Your task to perform on an android device: open sync settings in chrome Image 0: 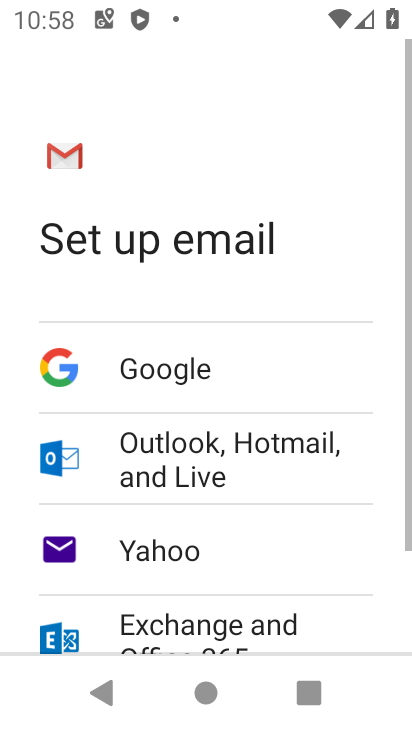
Step 0: press home button
Your task to perform on an android device: open sync settings in chrome Image 1: 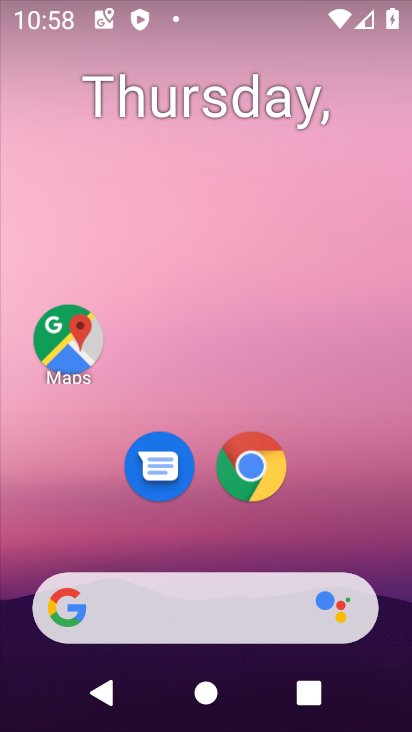
Step 1: click (249, 479)
Your task to perform on an android device: open sync settings in chrome Image 2: 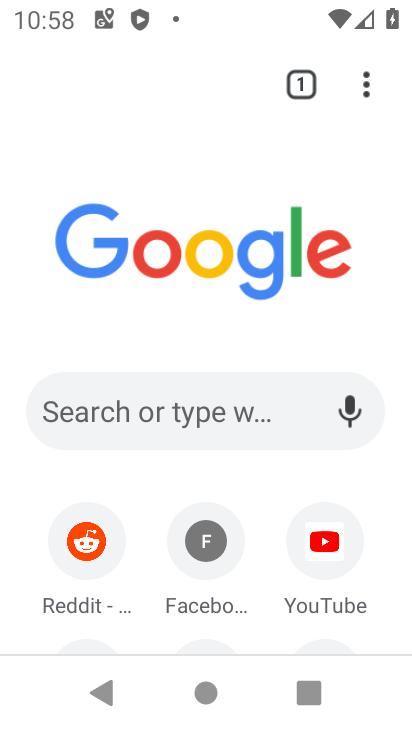
Step 2: click (366, 93)
Your task to perform on an android device: open sync settings in chrome Image 3: 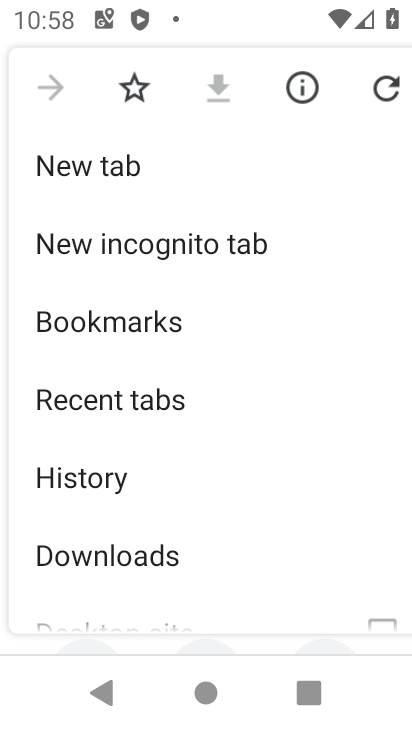
Step 3: drag from (136, 498) to (63, 53)
Your task to perform on an android device: open sync settings in chrome Image 4: 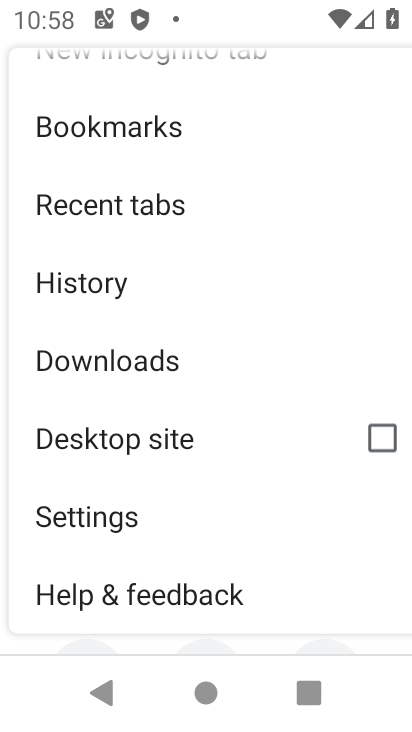
Step 4: click (120, 522)
Your task to perform on an android device: open sync settings in chrome Image 5: 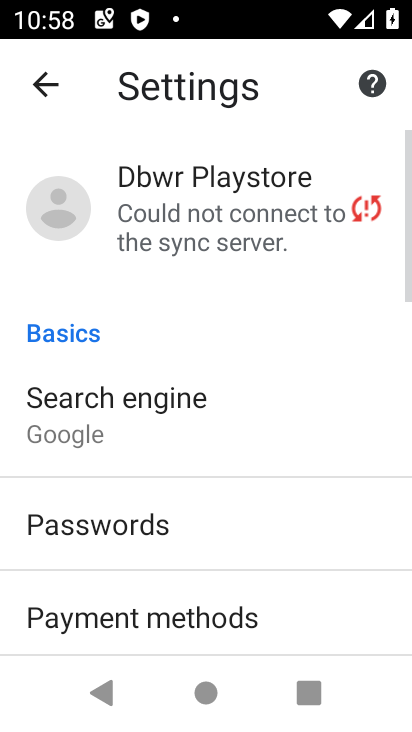
Step 5: click (158, 259)
Your task to perform on an android device: open sync settings in chrome Image 6: 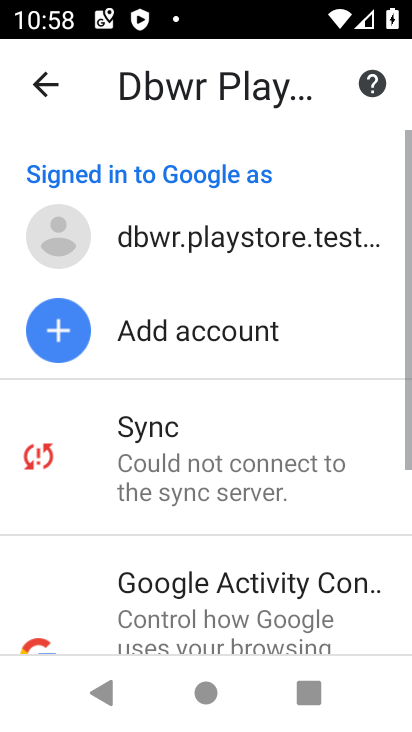
Step 6: click (189, 436)
Your task to perform on an android device: open sync settings in chrome Image 7: 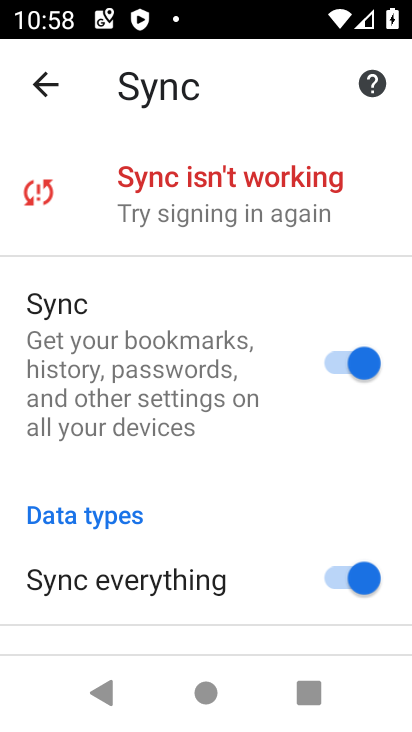
Step 7: task complete